Your task to perform on an android device: turn vacation reply on in the gmail app Image 0: 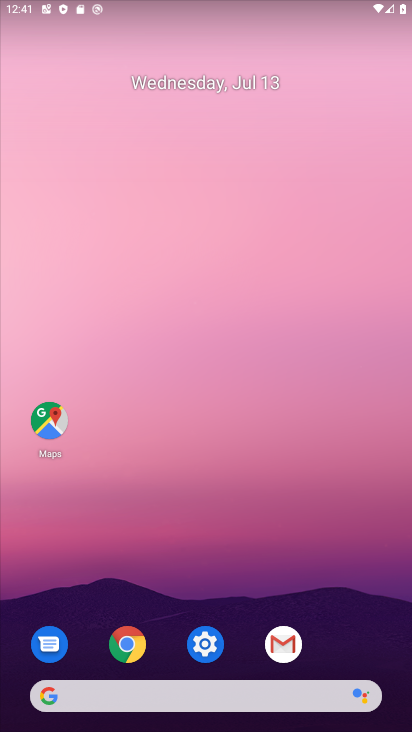
Step 0: press home button
Your task to perform on an android device: turn vacation reply on in the gmail app Image 1: 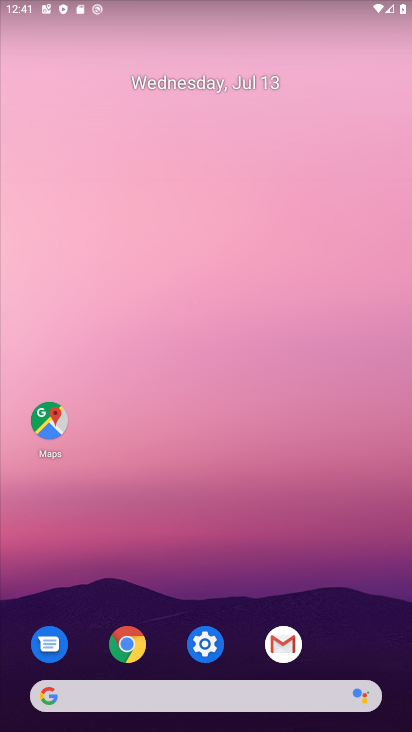
Step 1: click (284, 652)
Your task to perform on an android device: turn vacation reply on in the gmail app Image 2: 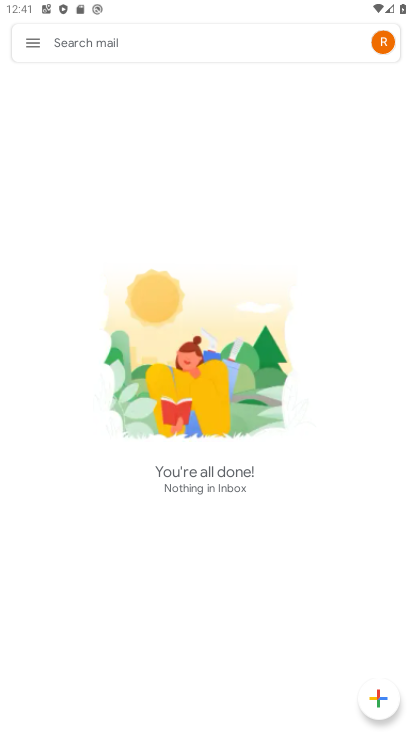
Step 2: click (33, 43)
Your task to perform on an android device: turn vacation reply on in the gmail app Image 3: 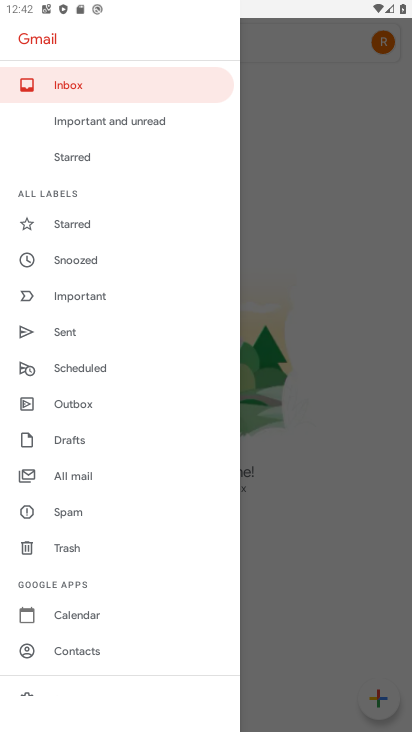
Step 3: drag from (48, 594) to (122, 478)
Your task to perform on an android device: turn vacation reply on in the gmail app Image 4: 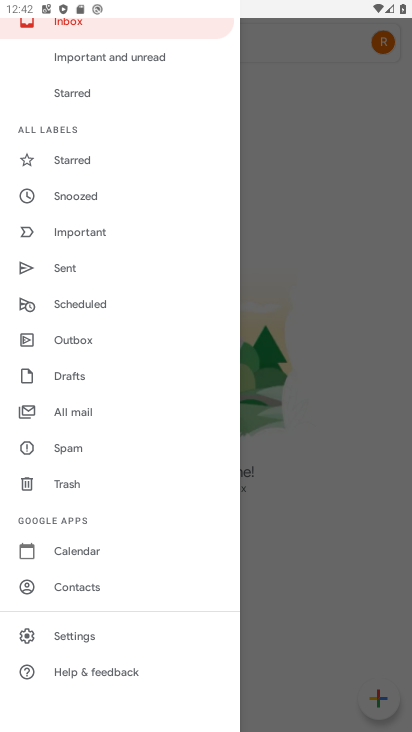
Step 4: click (76, 638)
Your task to perform on an android device: turn vacation reply on in the gmail app Image 5: 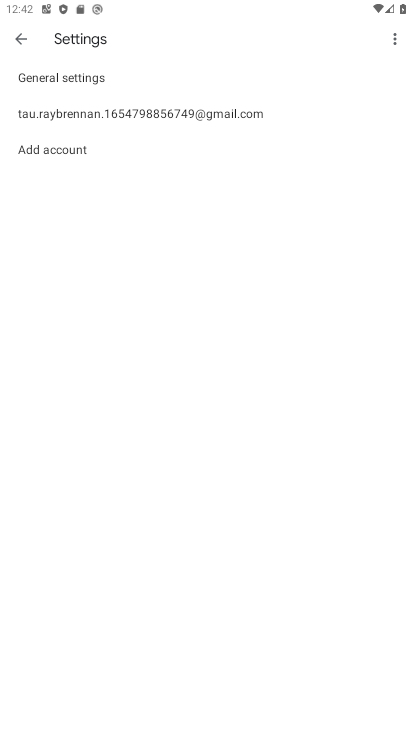
Step 5: click (96, 119)
Your task to perform on an android device: turn vacation reply on in the gmail app Image 6: 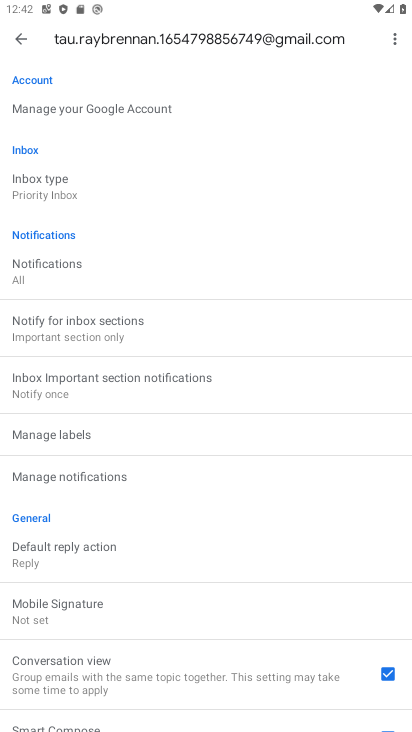
Step 6: drag from (227, 487) to (284, 375)
Your task to perform on an android device: turn vacation reply on in the gmail app Image 7: 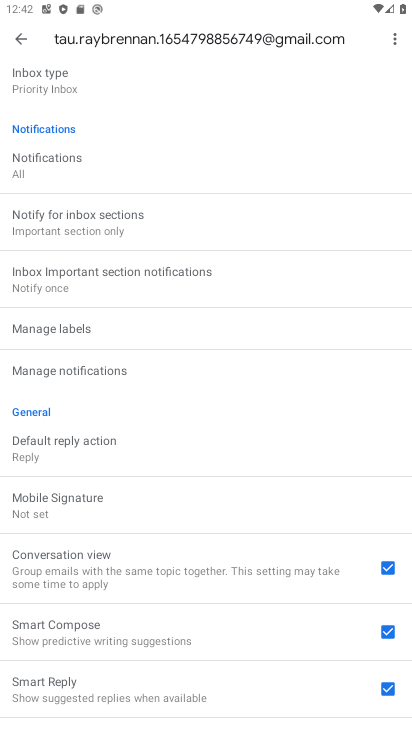
Step 7: drag from (174, 635) to (243, 427)
Your task to perform on an android device: turn vacation reply on in the gmail app Image 8: 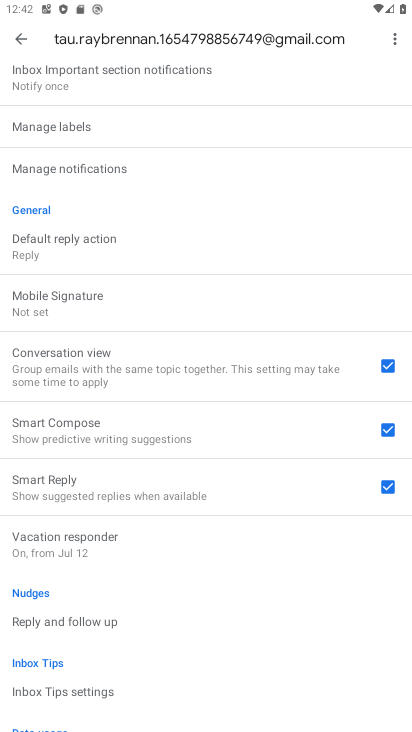
Step 8: click (220, 532)
Your task to perform on an android device: turn vacation reply on in the gmail app Image 9: 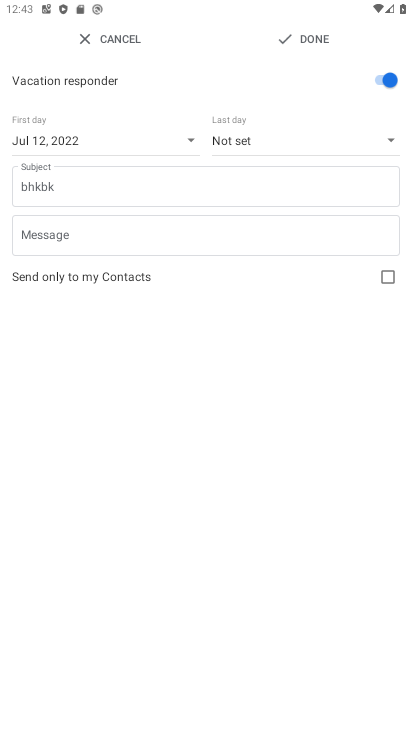
Step 9: task complete